Your task to perform on an android device: open app "Mercado Libre" (install if not already installed), go to login, and select forgot password Image 0: 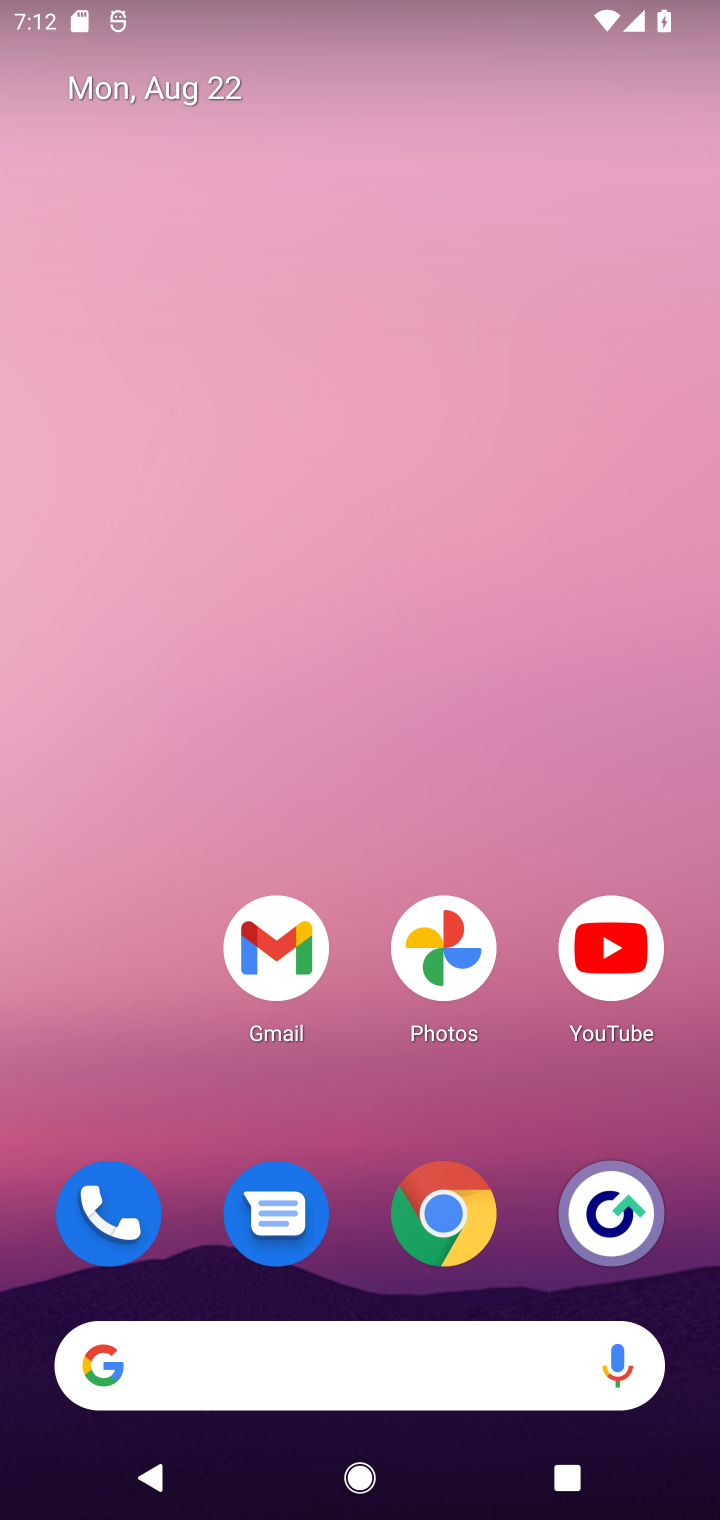
Step 0: press home button
Your task to perform on an android device: open app "Mercado Libre" (install if not already installed), go to login, and select forgot password Image 1: 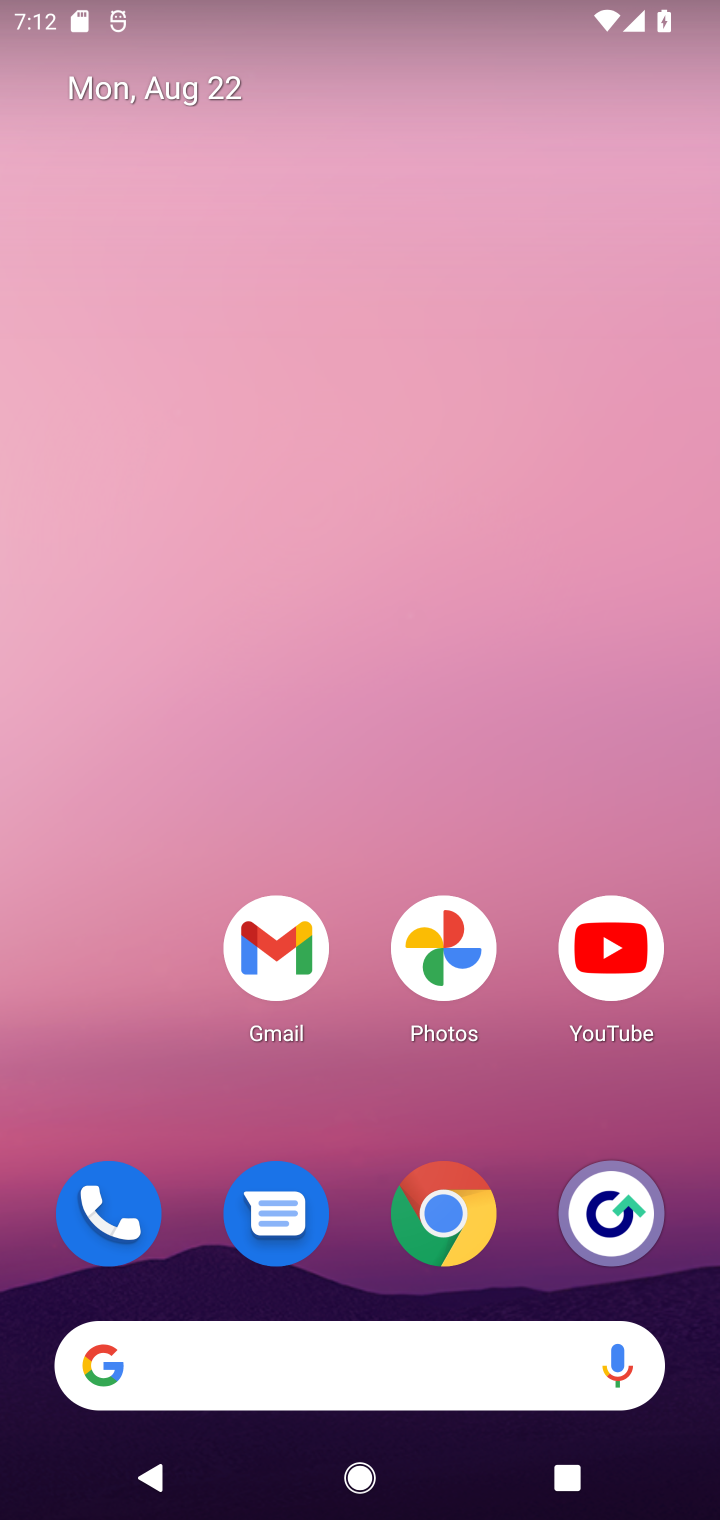
Step 1: drag from (362, 1152) to (381, 165)
Your task to perform on an android device: open app "Mercado Libre" (install if not already installed), go to login, and select forgot password Image 2: 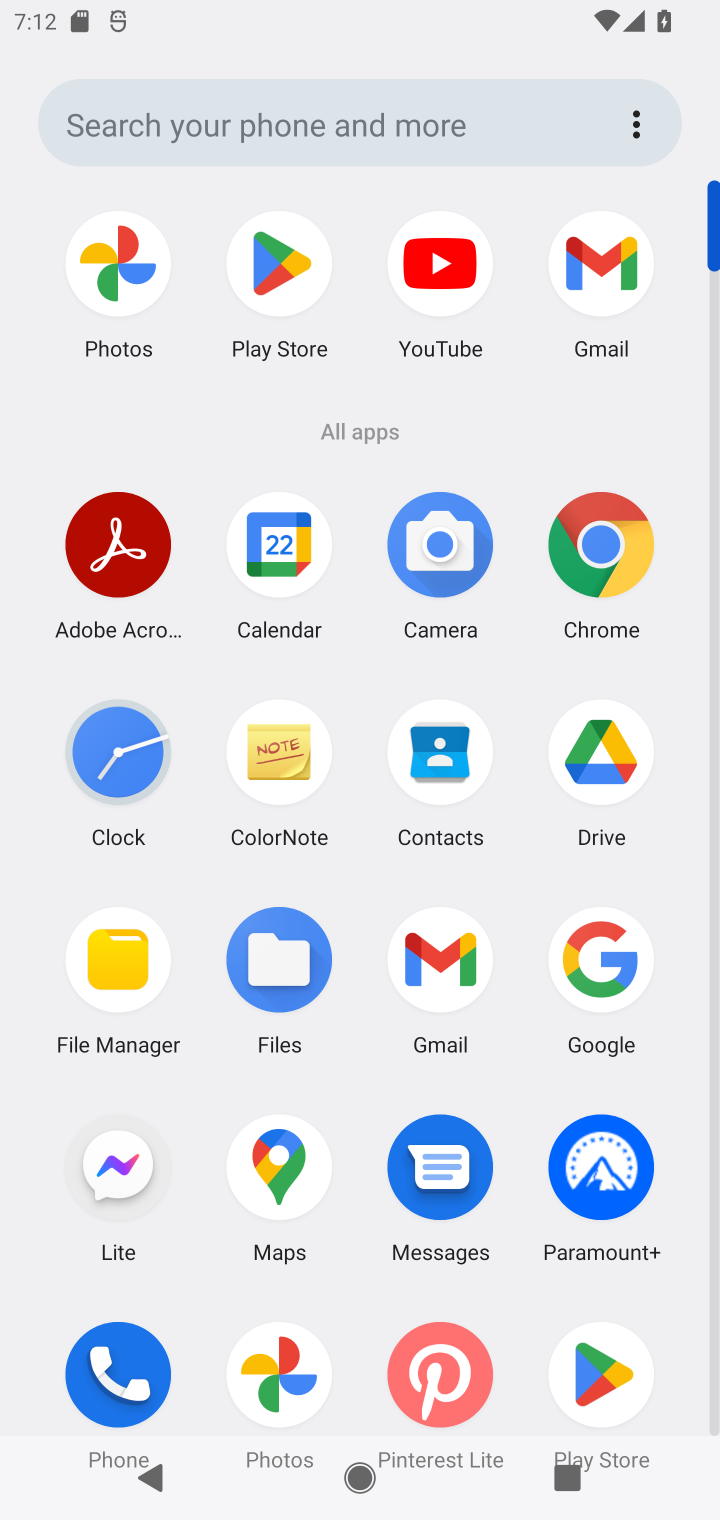
Step 2: click (592, 1367)
Your task to perform on an android device: open app "Mercado Libre" (install if not already installed), go to login, and select forgot password Image 3: 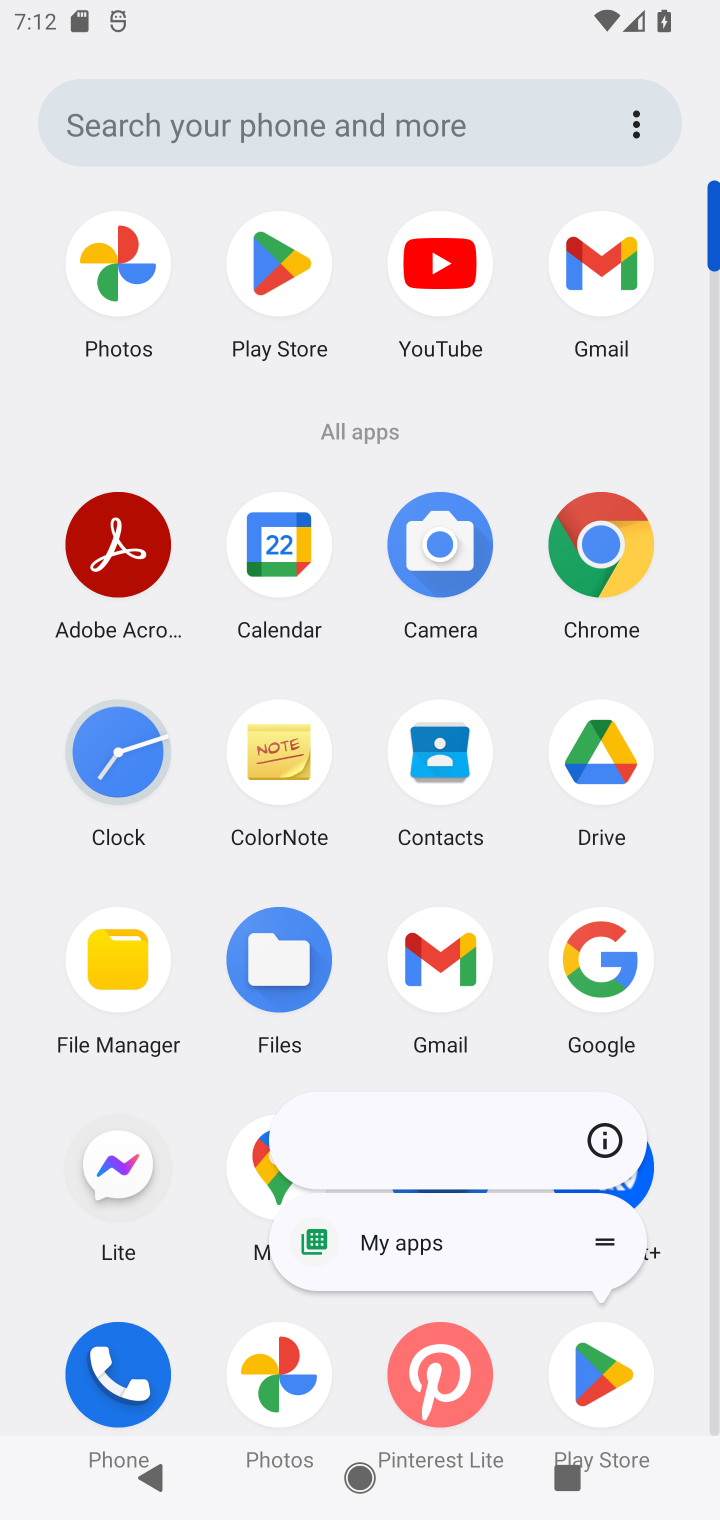
Step 3: click (593, 1366)
Your task to perform on an android device: open app "Mercado Libre" (install if not already installed), go to login, and select forgot password Image 4: 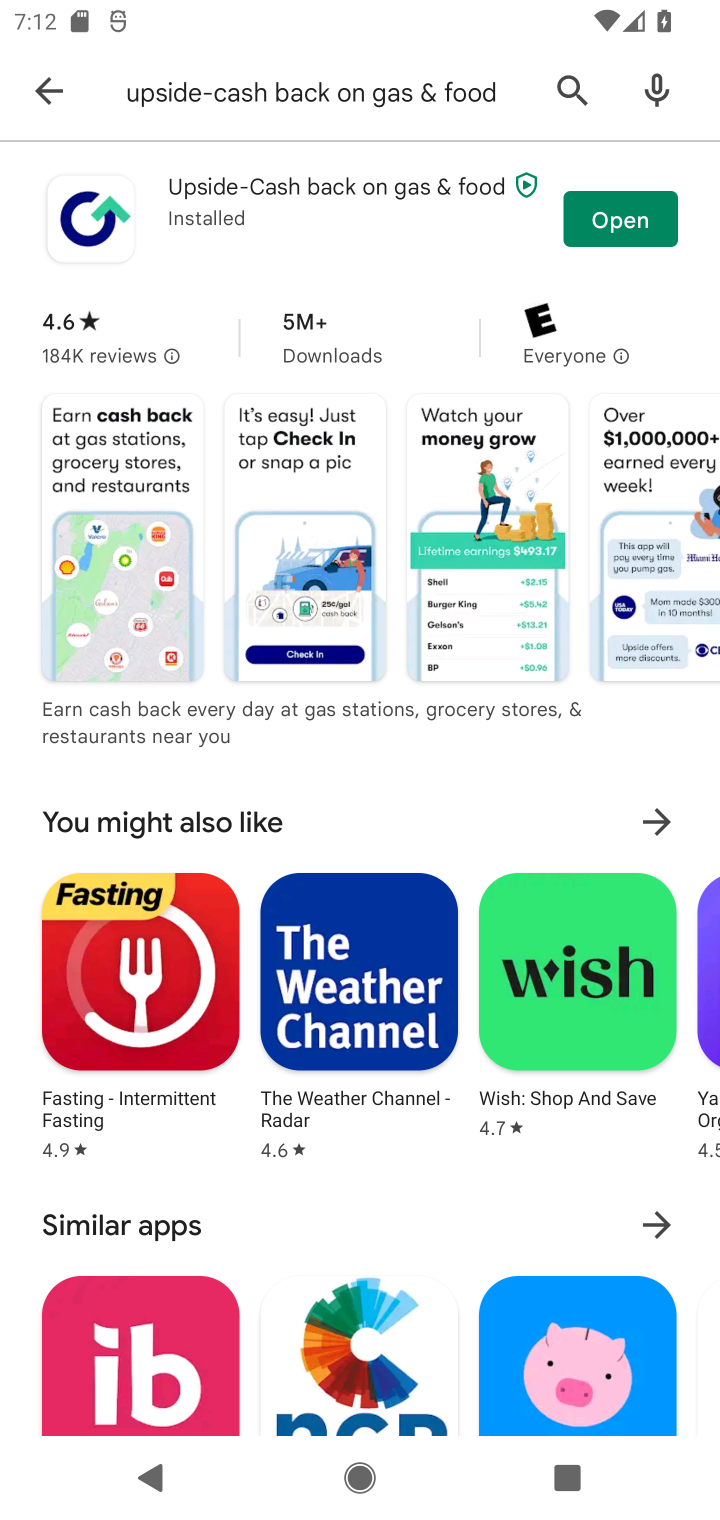
Step 4: click (593, 1366)
Your task to perform on an android device: open app "Mercado Libre" (install if not already installed), go to login, and select forgot password Image 5: 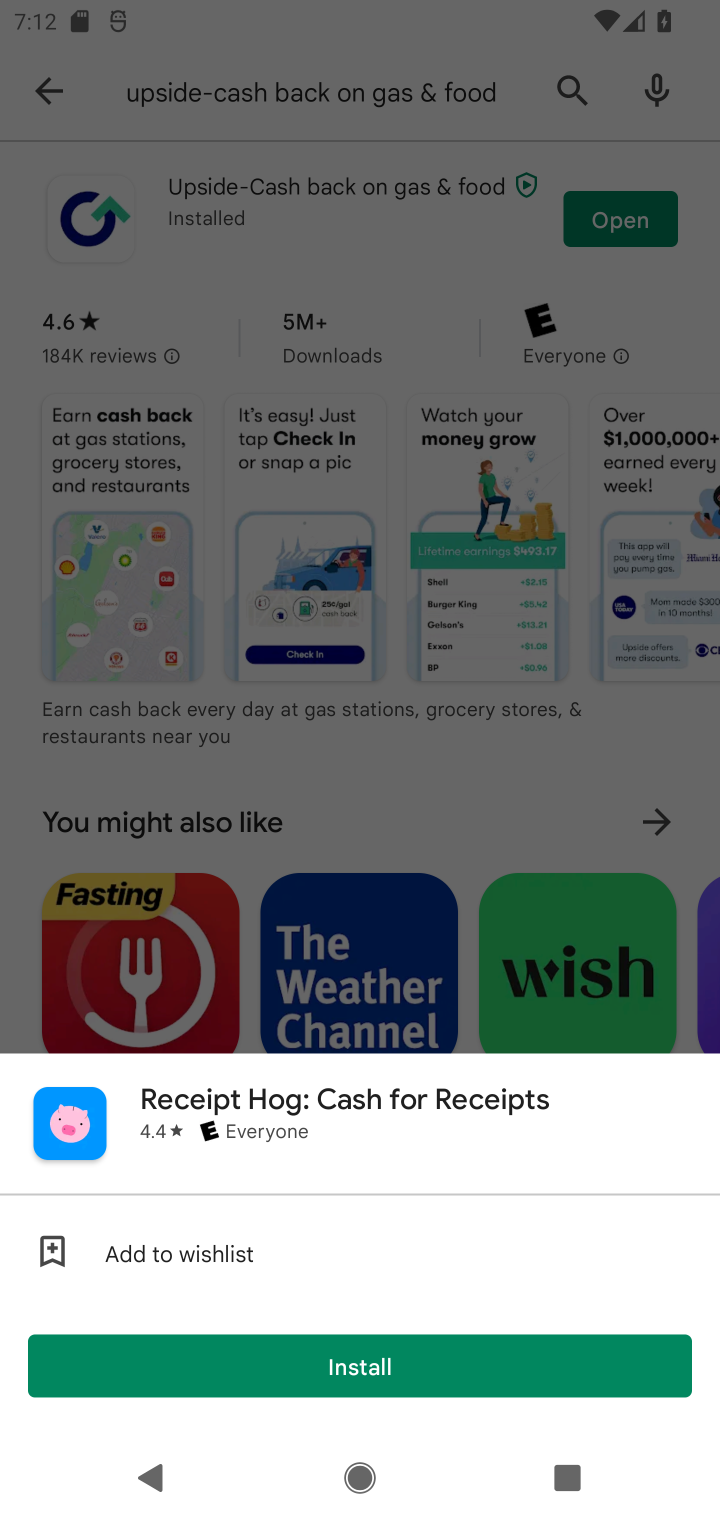
Step 5: click (126, 263)
Your task to perform on an android device: open app "Mercado Libre" (install if not already installed), go to login, and select forgot password Image 6: 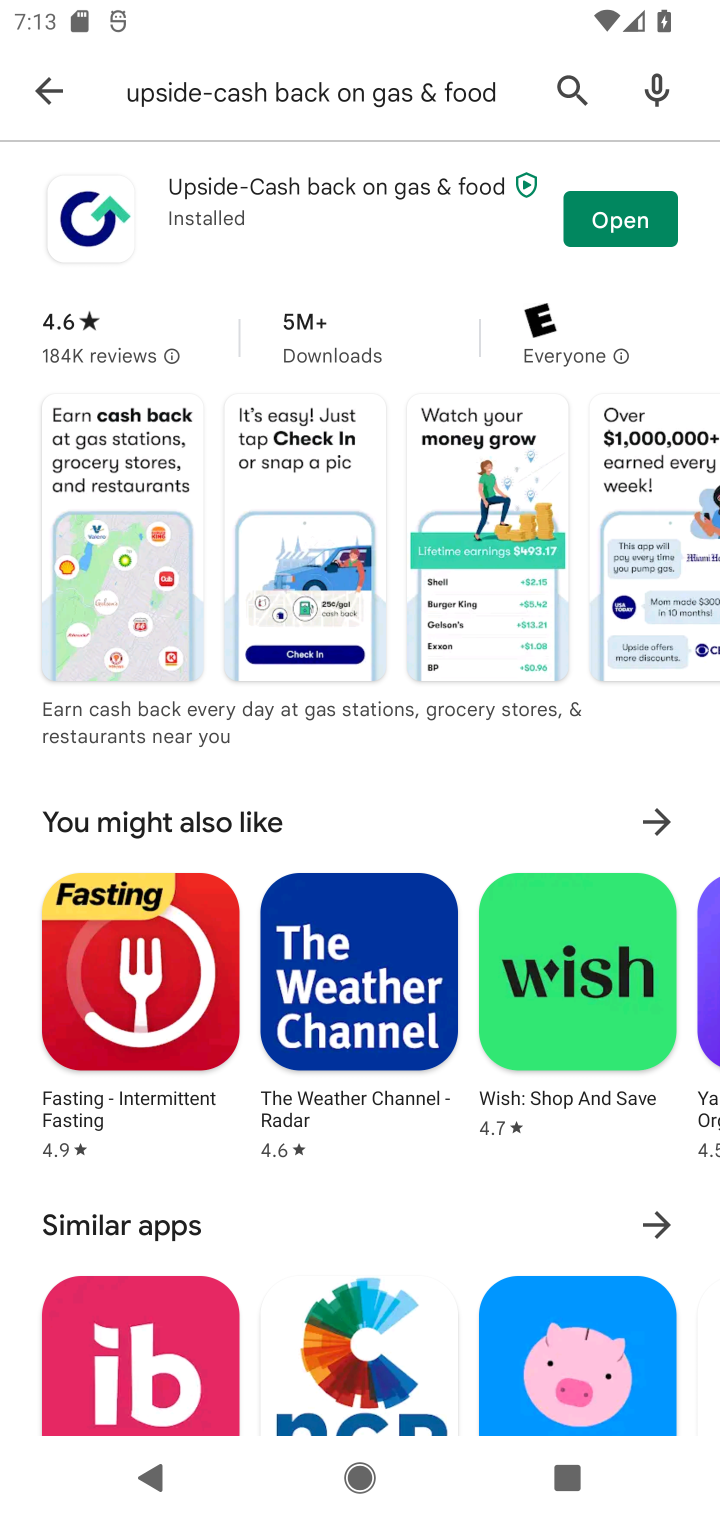
Step 6: click (563, 83)
Your task to perform on an android device: open app "Mercado Libre" (install if not already installed), go to login, and select forgot password Image 7: 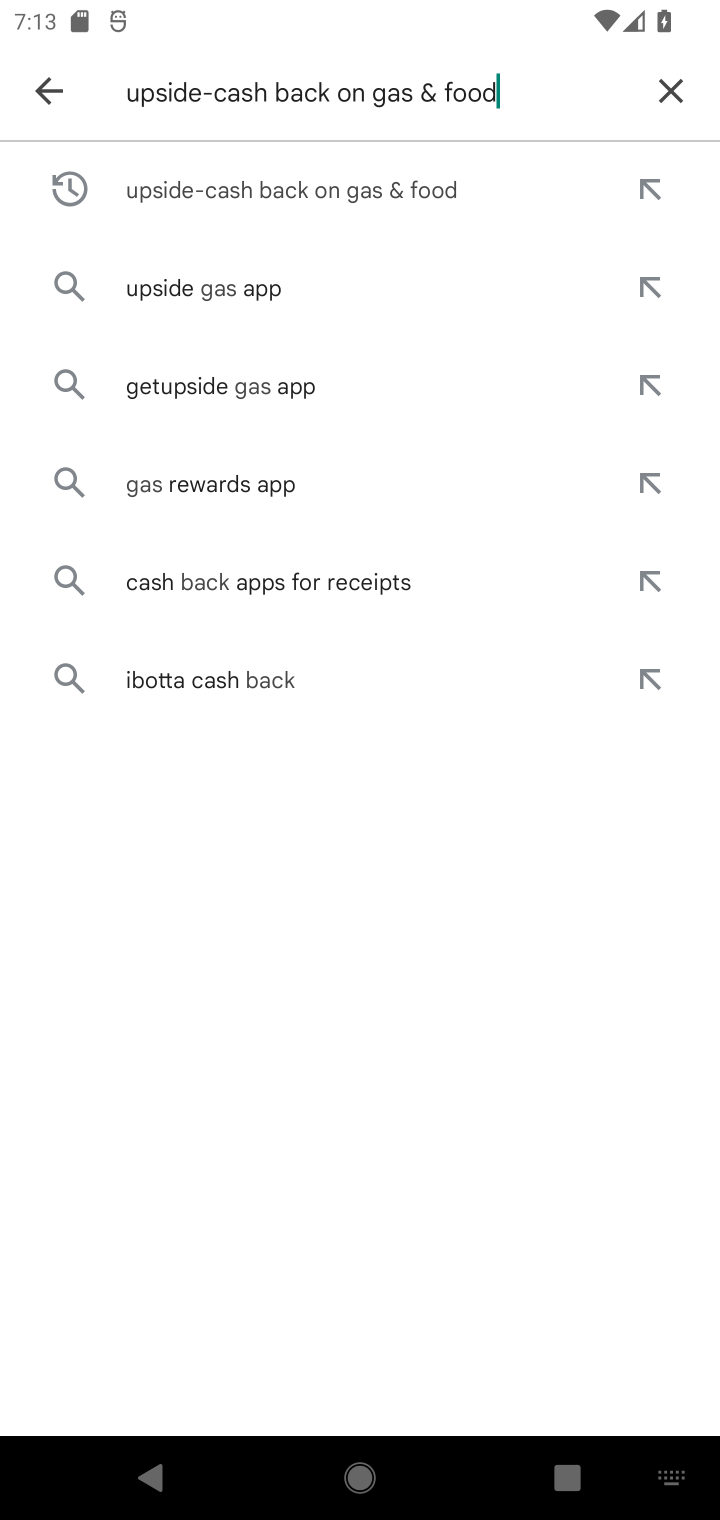
Step 7: click (671, 82)
Your task to perform on an android device: open app "Mercado Libre" (install if not already installed), go to login, and select forgot password Image 8: 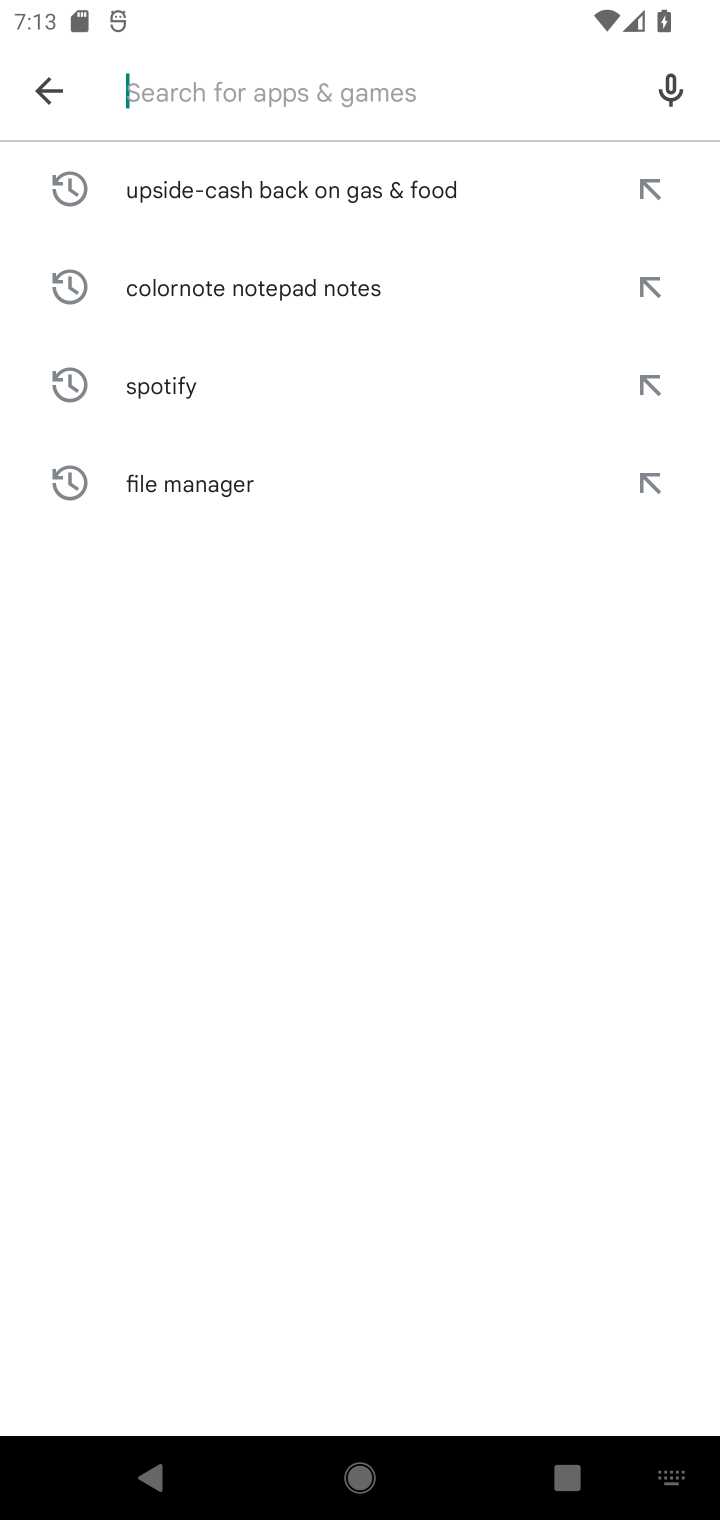
Step 8: type "Mercado Libre"
Your task to perform on an android device: open app "Mercado Libre" (install if not already installed), go to login, and select forgot password Image 9: 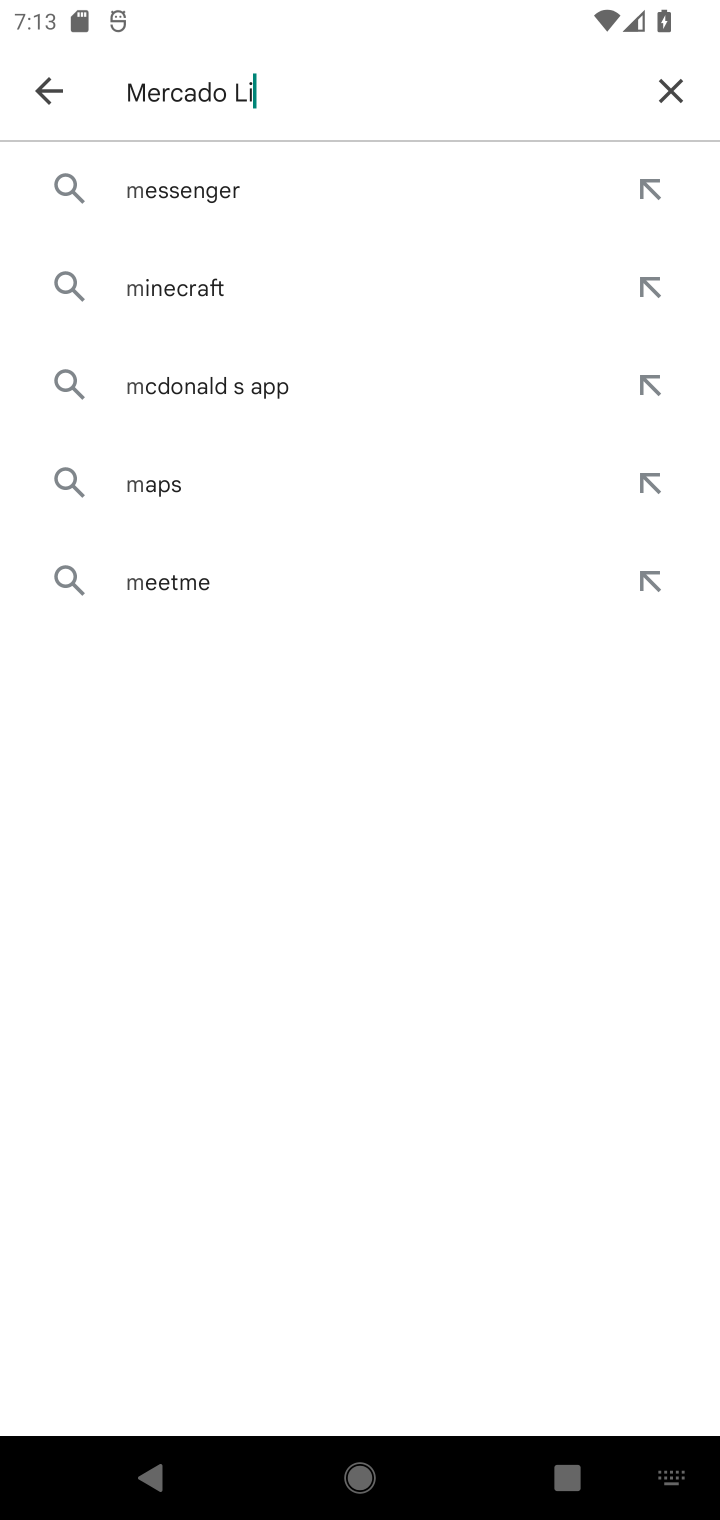
Step 9: type ""
Your task to perform on an android device: open app "Mercado Libre" (install if not already installed), go to login, and select forgot password Image 10: 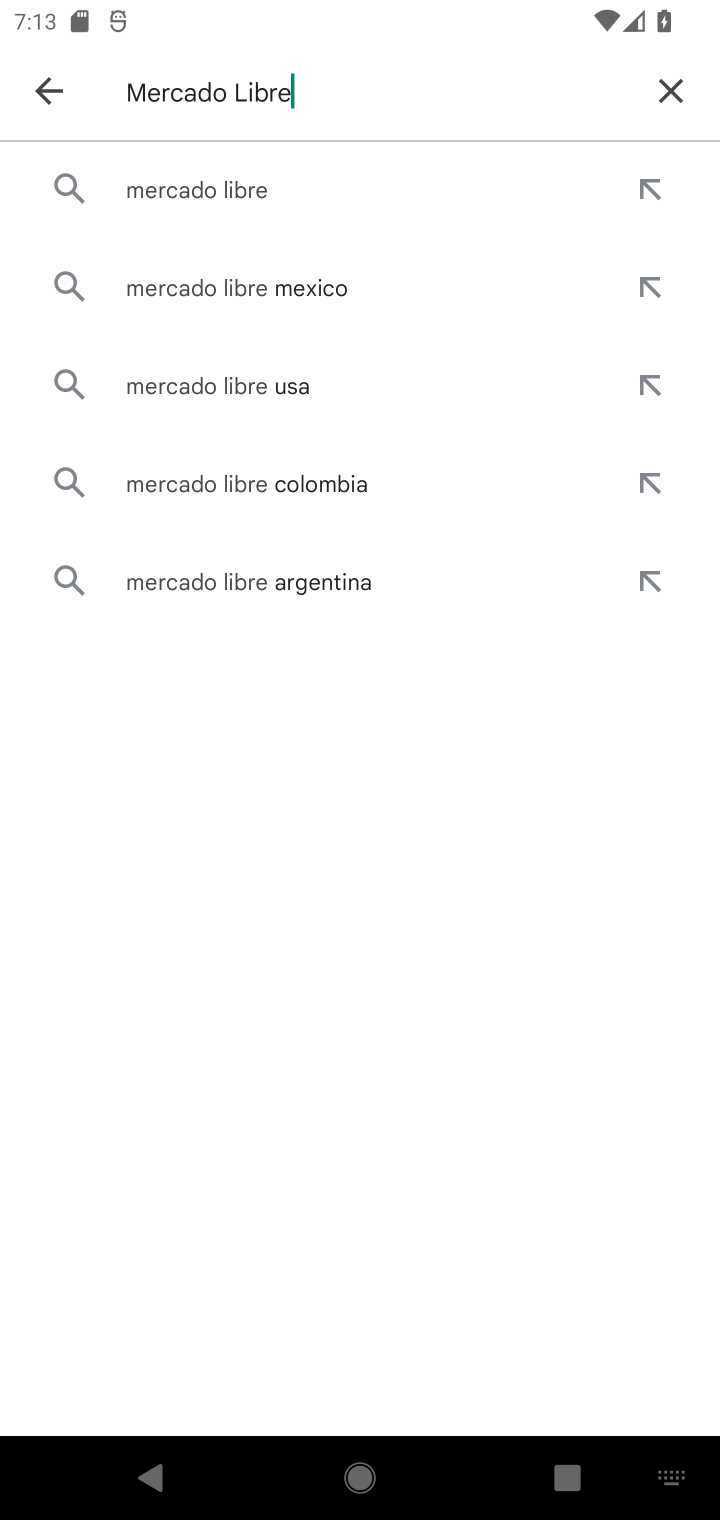
Step 10: click (286, 186)
Your task to perform on an android device: open app "Mercado Libre" (install if not already installed), go to login, and select forgot password Image 11: 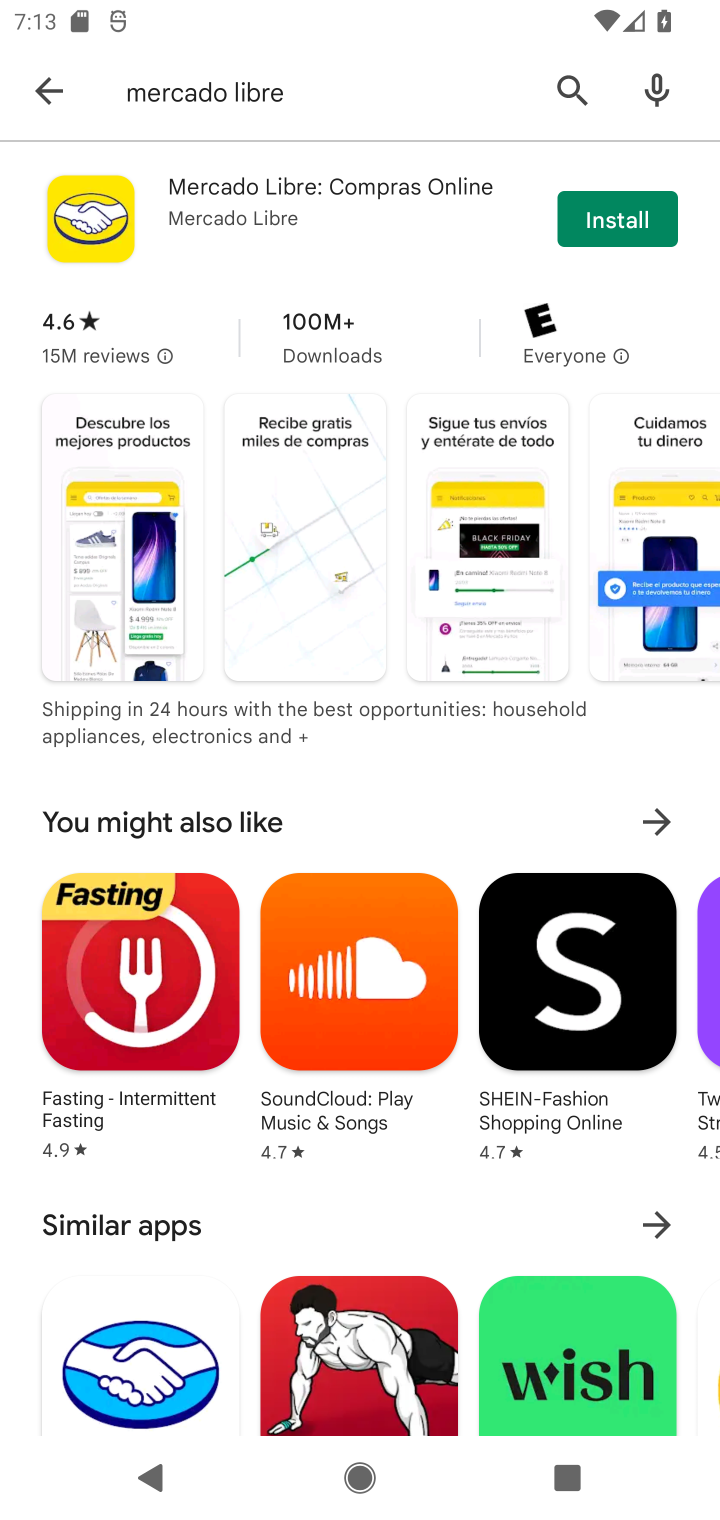
Step 11: click (616, 211)
Your task to perform on an android device: open app "Mercado Libre" (install if not already installed), go to login, and select forgot password Image 12: 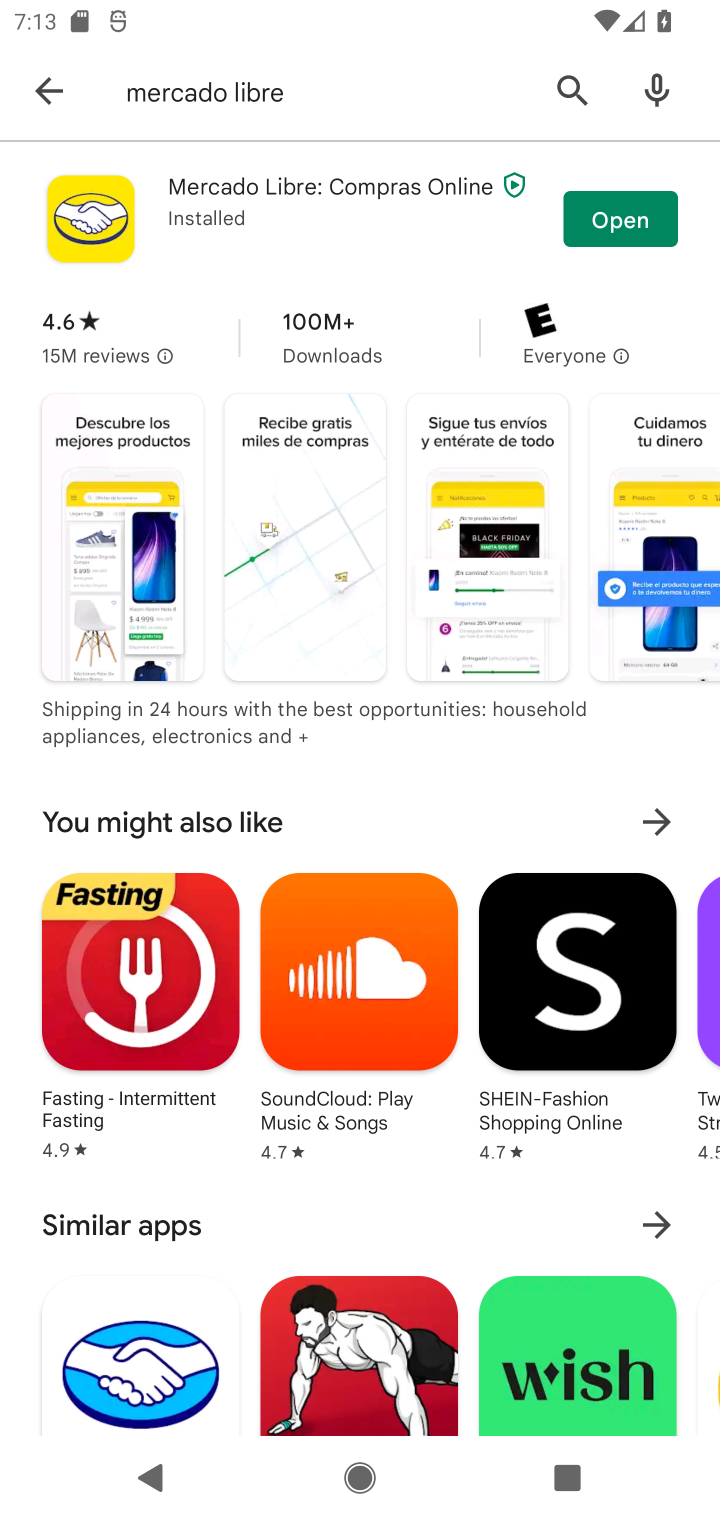
Step 12: click (623, 217)
Your task to perform on an android device: open app "Mercado Libre" (install if not already installed), go to login, and select forgot password Image 13: 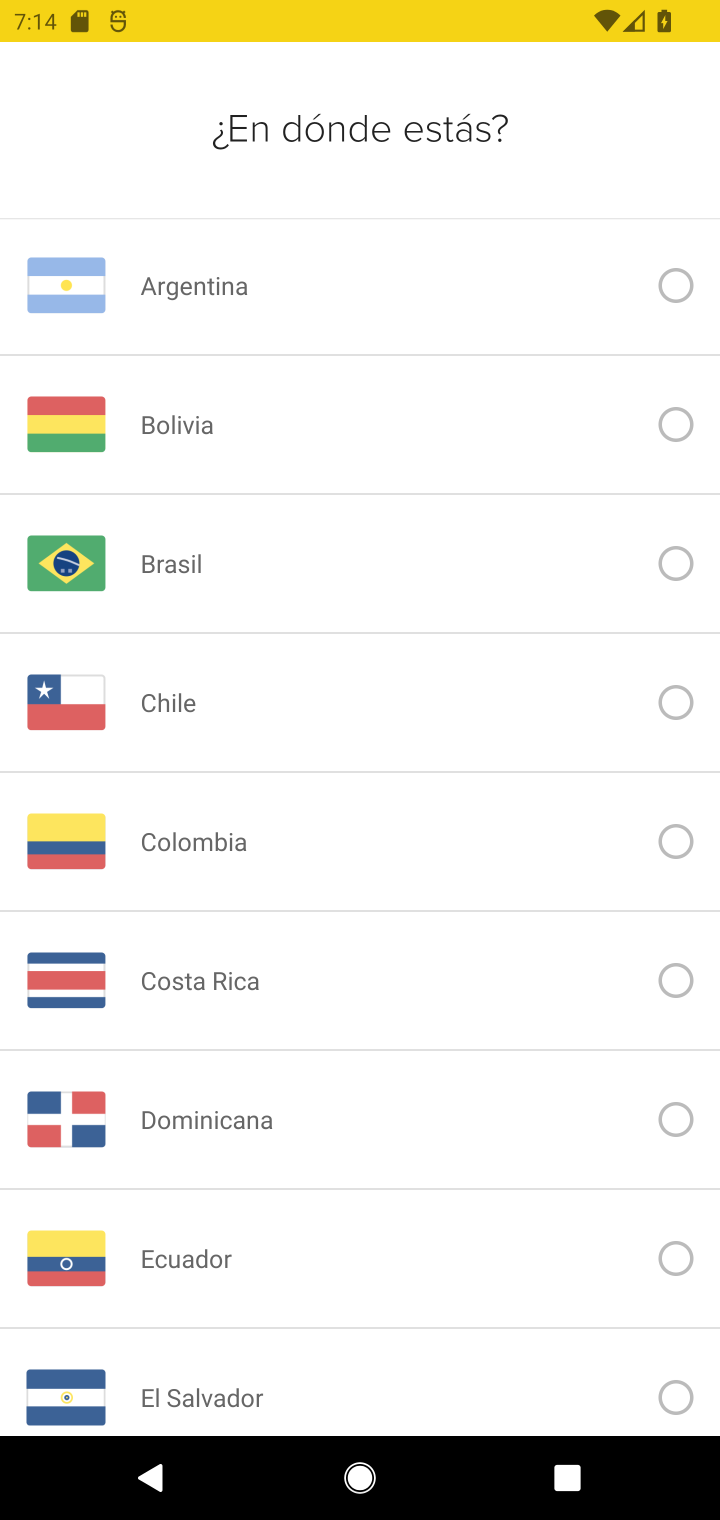
Step 13: task complete